Your task to perform on an android device: What is the recent news? Image 0: 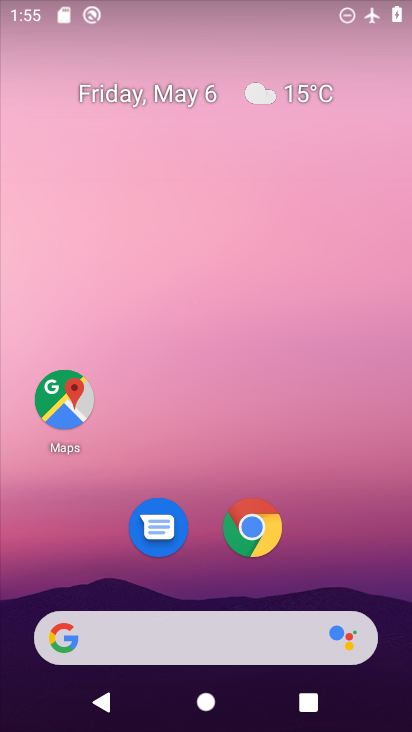
Step 0: click (246, 530)
Your task to perform on an android device: What is the recent news? Image 1: 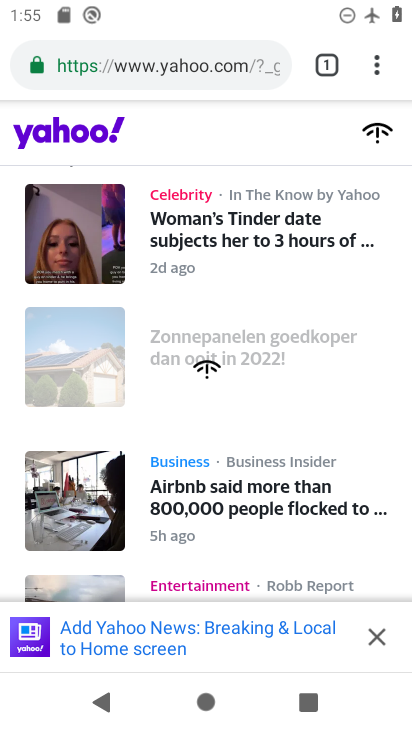
Step 1: click (329, 64)
Your task to perform on an android device: What is the recent news? Image 2: 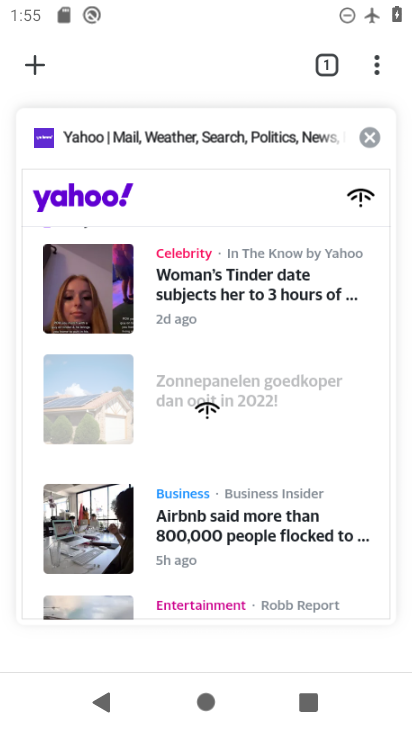
Step 2: click (31, 57)
Your task to perform on an android device: What is the recent news? Image 3: 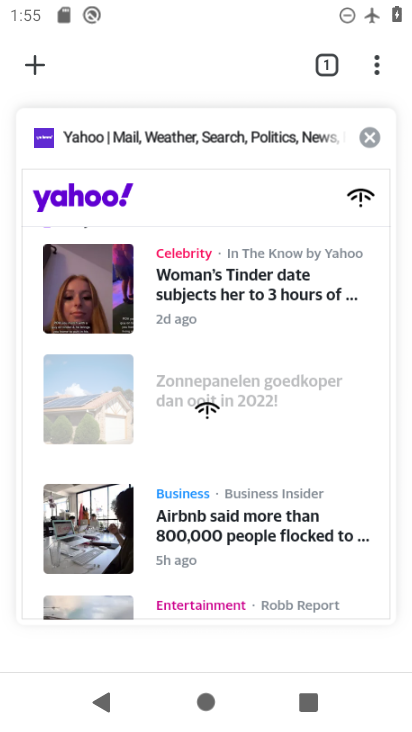
Step 3: drag from (377, 66) to (197, 78)
Your task to perform on an android device: What is the recent news? Image 4: 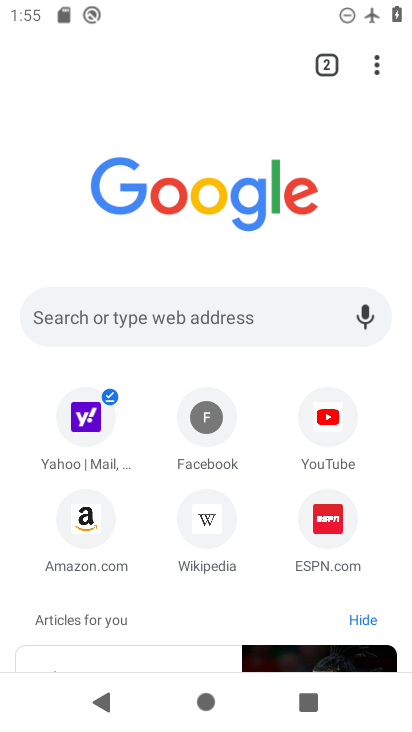
Step 4: click (144, 298)
Your task to perform on an android device: What is the recent news? Image 5: 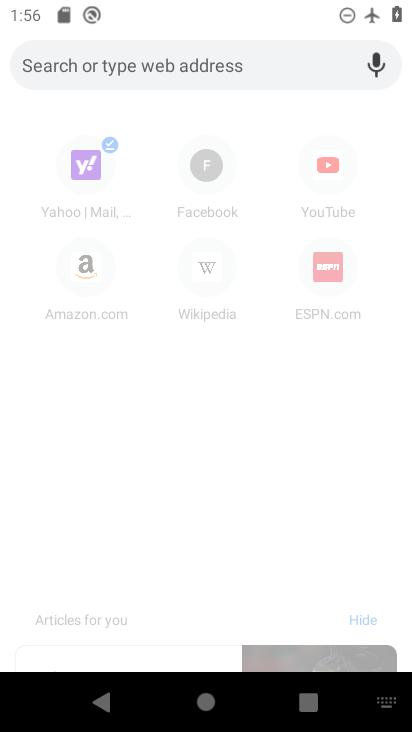
Step 5: type "recent news"
Your task to perform on an android device: What is the recent news? Image 6: 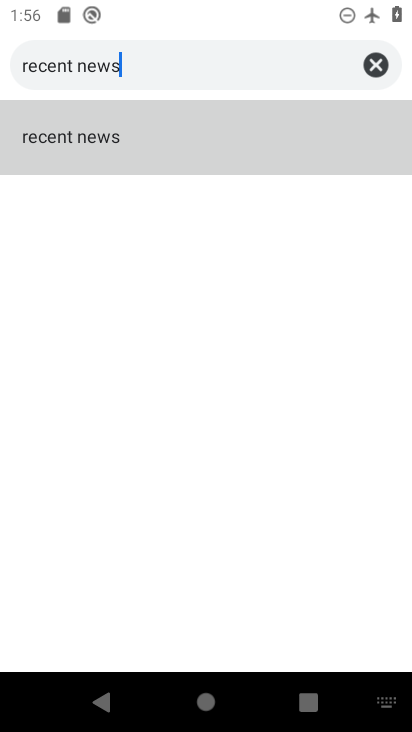
Step 6: click (80, 144)
Your task to perform on an android device: What is the recent news? Image 7: 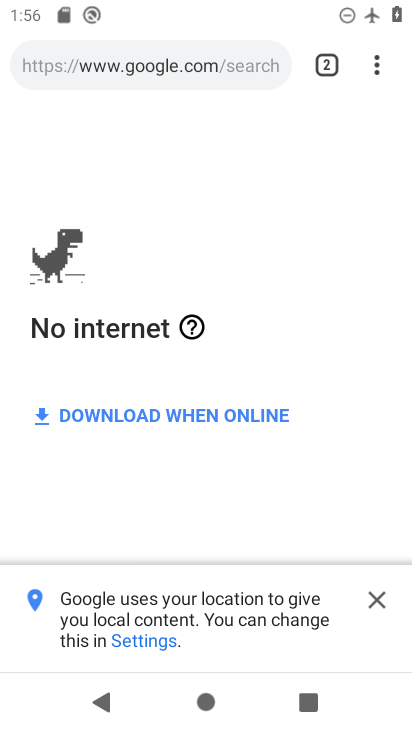
Step 7: task complete